Your task to perform on an android device: Open settings on Google Maps Image 0: 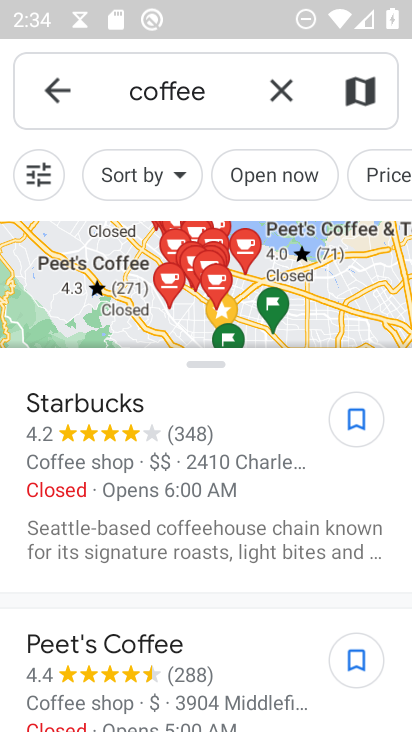
Step 0: press home button
Your task to perform on an android device: Open settings on Google Maps Image 1: 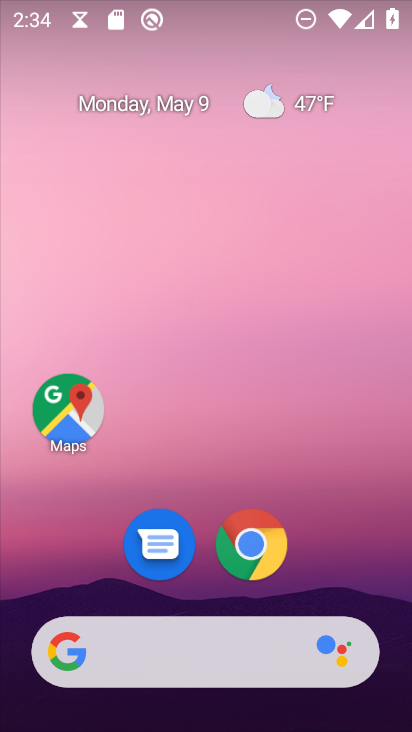
Step 1: drag from (364, 609) to (405, 165)
Your task to perform on an android device: Open settings on Google Maps Image 2: 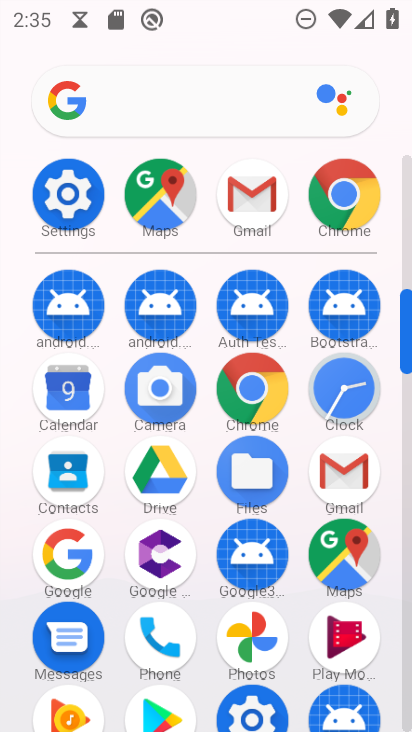
Step 2: click (177, 190)
Your task to perform on an android device: Open settings on Google Maps Image 3: 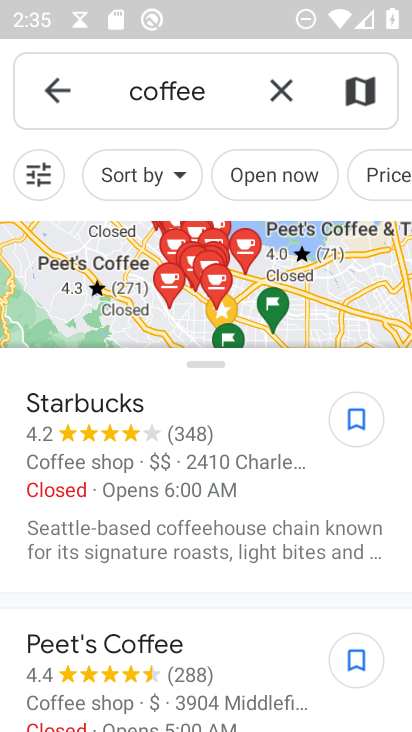
Step 3: task complete